Your task to perform on an android device: turn off translation in the chrome app Image 0: 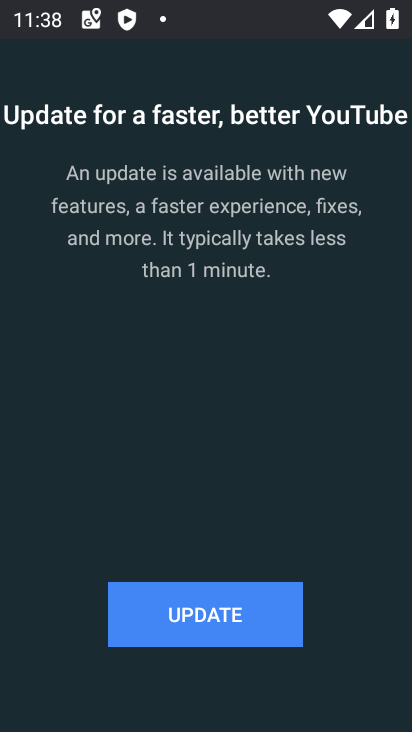
Step 0: press back button
Your task to perform on an android device: turn off translation in the chrome app Image 1: 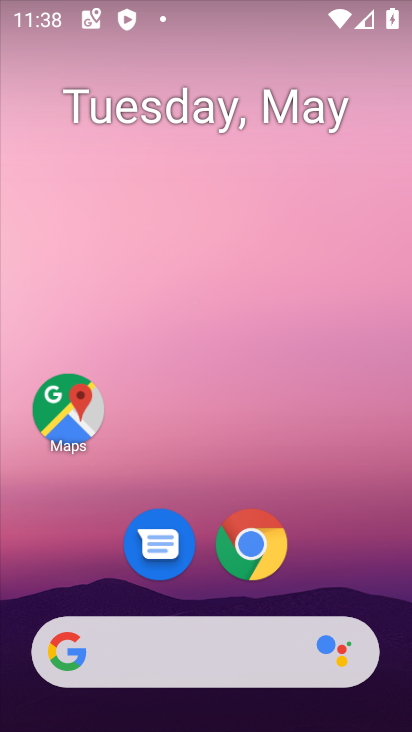
Step 1: drag from (365, 549) to (159, 79)
Your task to perform on an android device: turn off translation in the chrome app Image 2: 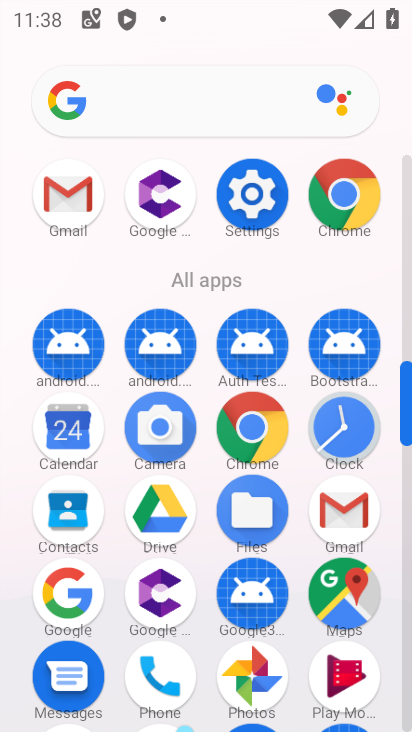
Step 2: click (331, 191)
Your task to perform on an android device: turn off translation in the chrome app Image 3: 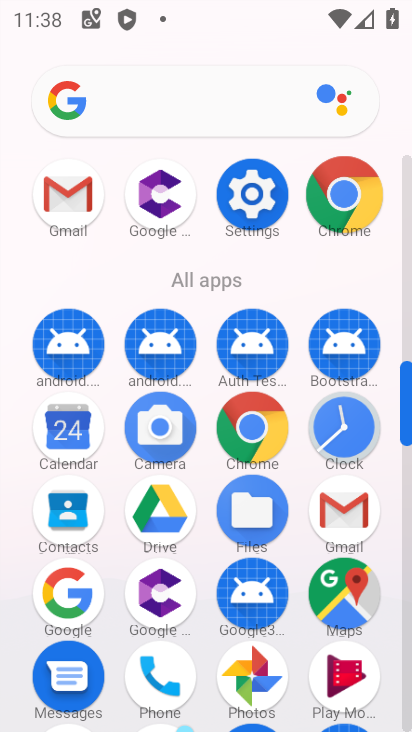
Step 3: click (331, 191)
Your task to perform on an android device: turn off translation in the chrome app Image 4: 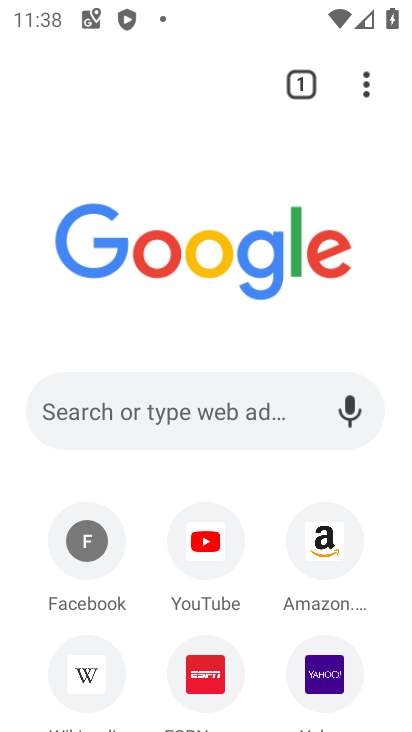
Step 4: click (365, 85)
Your task to perform on an android device: turn off translation in the chrome app Image 5: 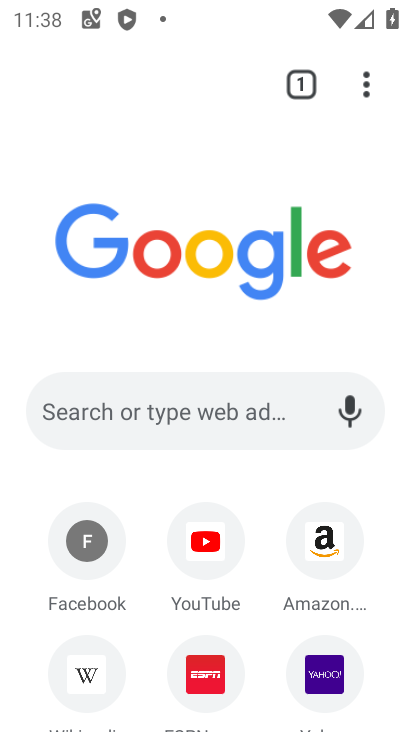
Step 5: drag from (338, 188) to (203, 591)
Your task to perform on an android device: turn off translation in the chrome app Image 6: 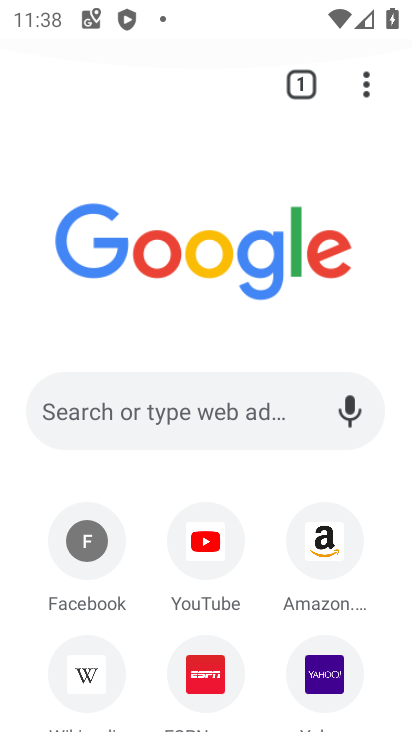
Step 6: click (203, 591)
Your task to perform on an android device: turn off translation in the chrome app Image 7: 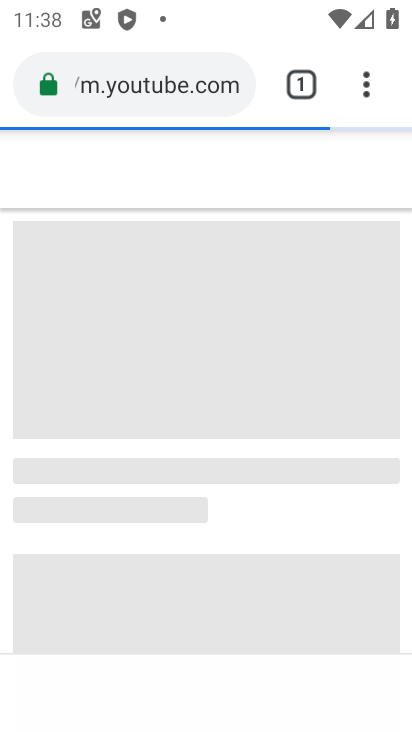
Step 7: press back button
Your task to perform on an android device: turn off translation in the chrome app Image 8: 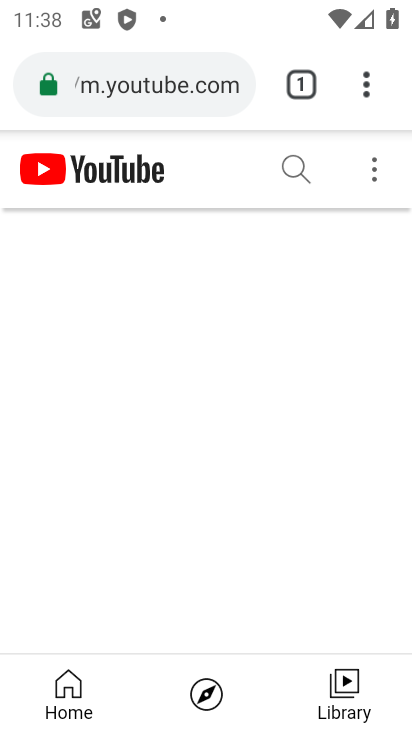
Step 8: press back button
Your task to perform on an android device: turn off translation in the chrome app Image 9: 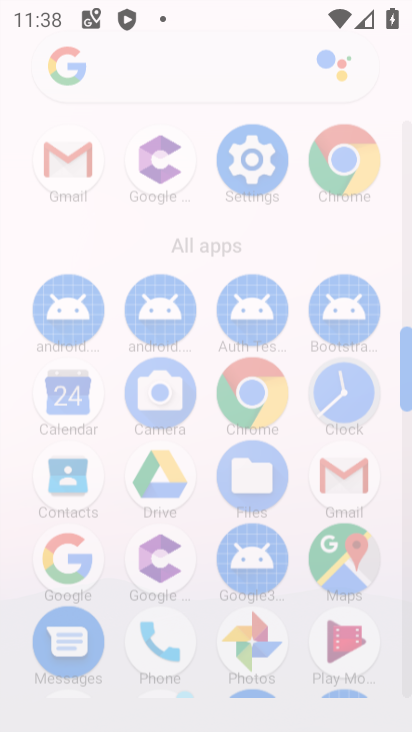
Step 9: click (364, 91)
Your task to perform on an android device: turn off translation in the chrome app Image 10: 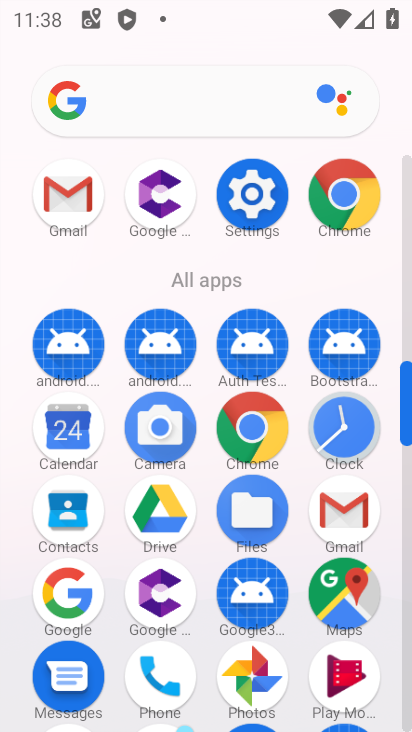
Step 10: press home button
Your task to perform on an android device: turn off translation in the chrome app Image 11: 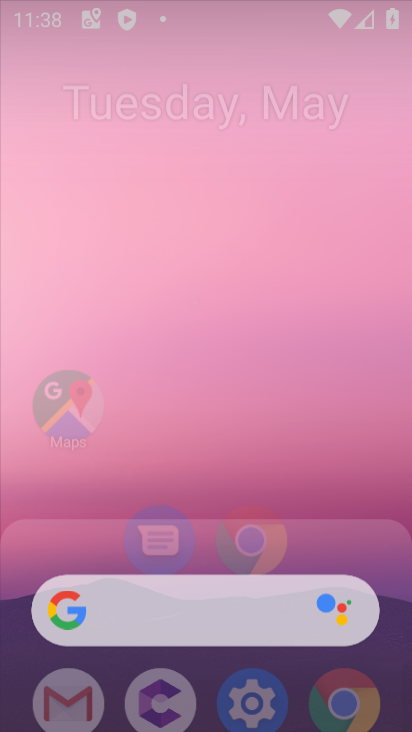
Step 11: press home button
Your task to perform on an android device: turn off translation in the chrome app Image 12: 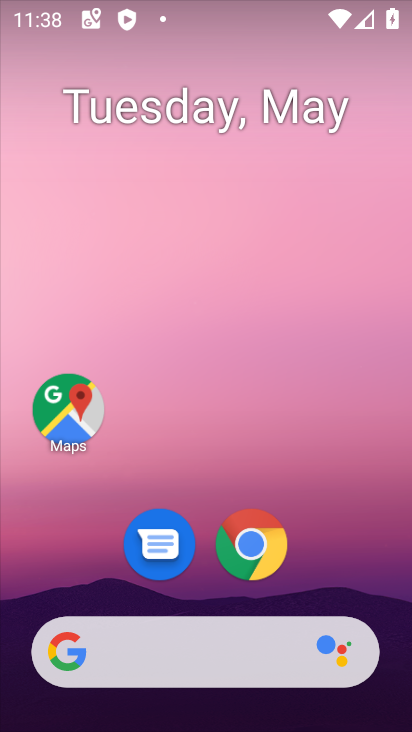
Step 12: drag from (328, 435) to (210, 149)
Your task to perform on an android device: turn off translation in the chrome app Image 13: 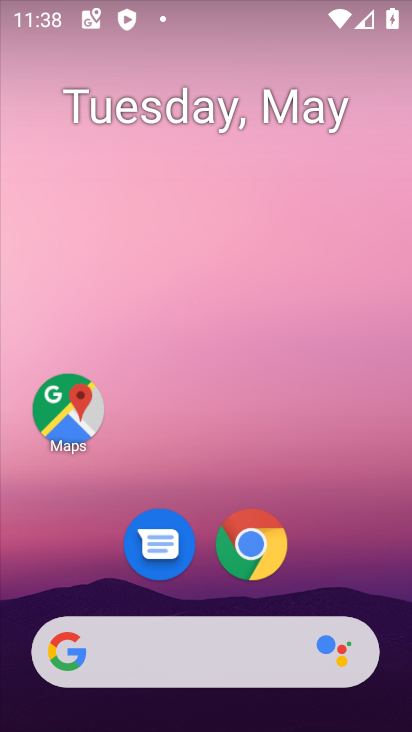
Step 13: drag from (345, 596) to (131, 149)
Your task to perform on an android device: turn off translation in the chrome app Image 14: 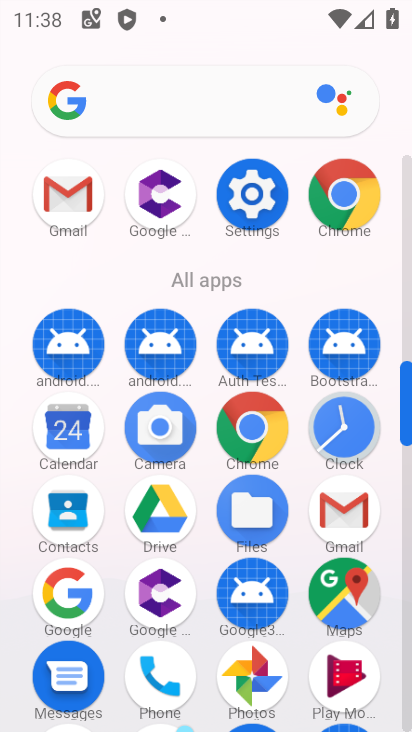
Step 14: click (199, 0)
Your task to perform on an android device: turn off translation in the chrome app Image 15: 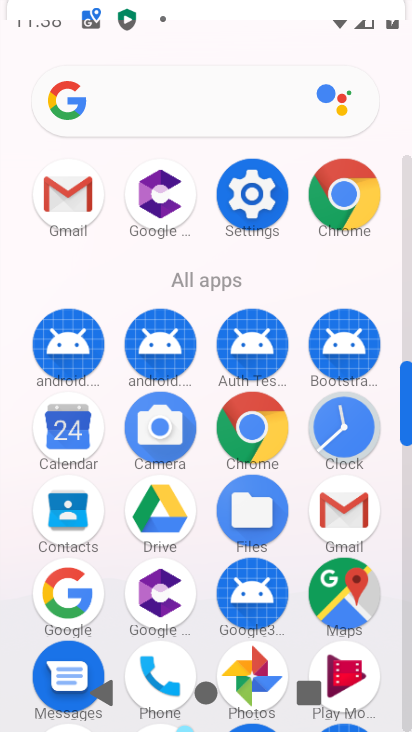
Step 15: click (338, 218)
Your task to perform on an android device: turn off translation in the chrome app Image 16: 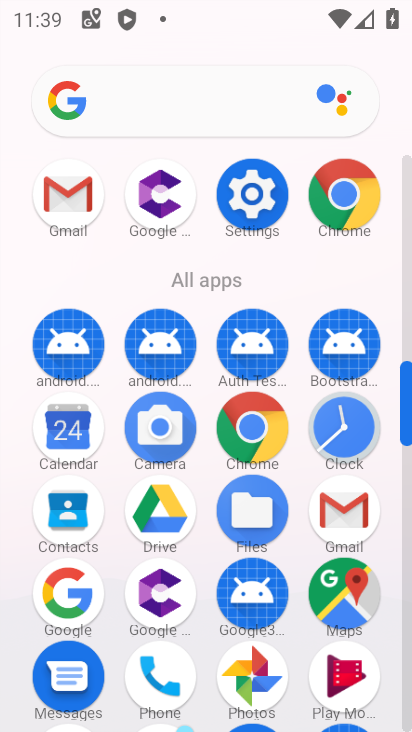
Step 16: click (346, 205)
Your task to perform on an android device: turn off translation in the chrome app Image 17: 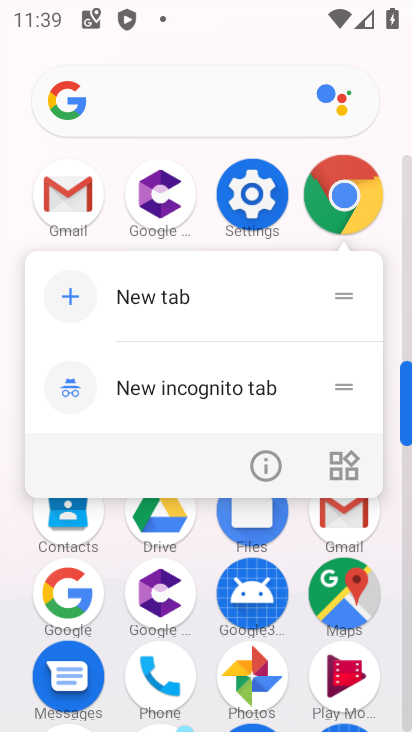
Step 17: click (351, 195)
Your task to perform on an android device: turn off translation in the chrome app Image 18: 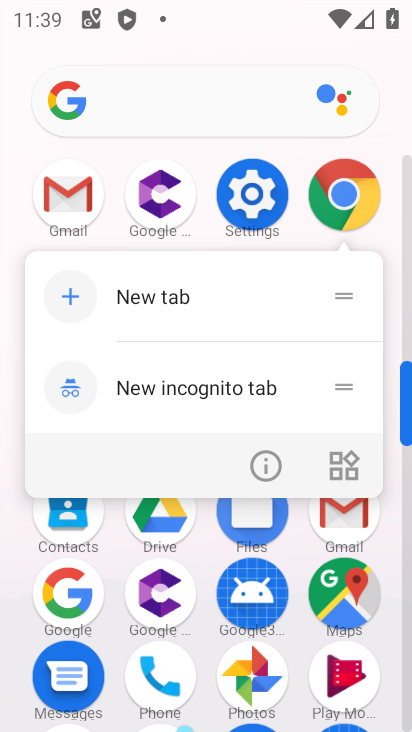
Step 18: click (351, 195)
Your task to perform on an android device: turn off translation in the chrome app Image 19: 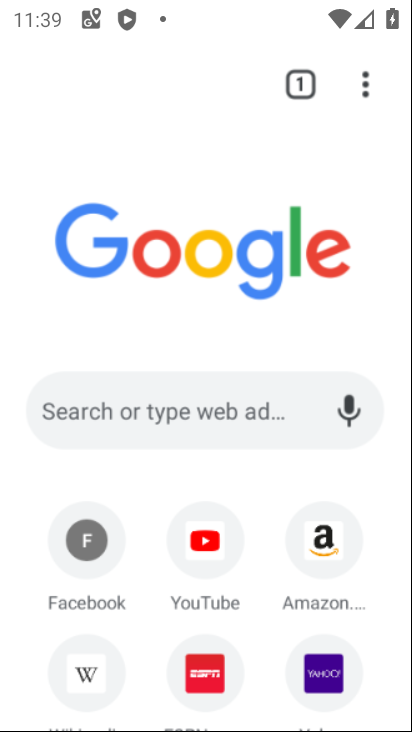
Step 19: click (352, 196)
Your task to perform on an android device: turn off translation in the chrome app Image 20: 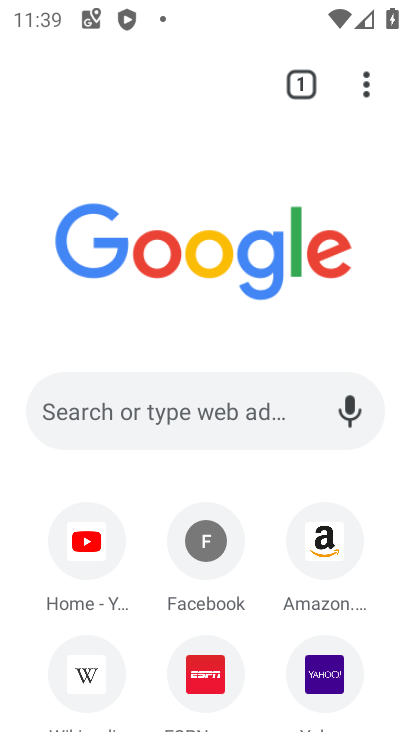
Step 20: drag from (365, 89) to (70, 596)
Your task to perform on an android device: turn off translation in the chrome app Image 21: 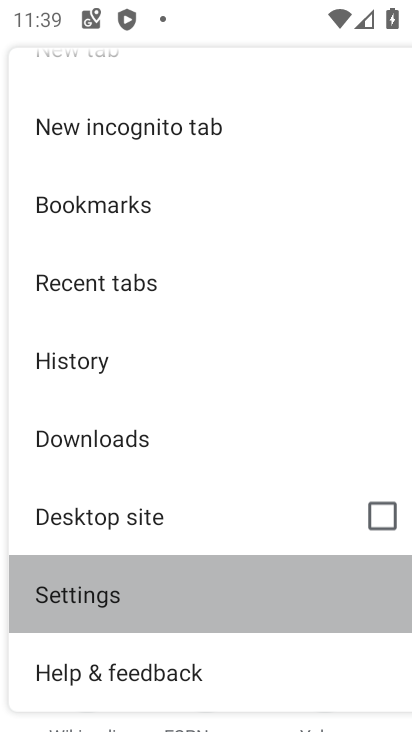
Step 21: click (73, 595)
Your task to perform on an android device: turn off translation in the chrome app Image 22: 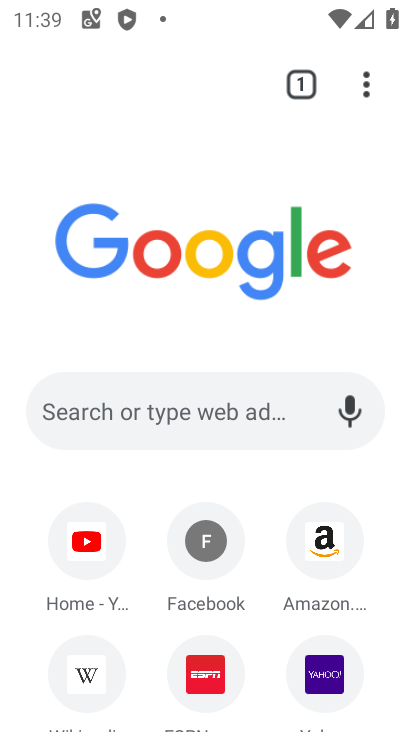
Step 22: click (72, 590)
Your task to perform on an android device: turn off translation in the chrome app Image 23: 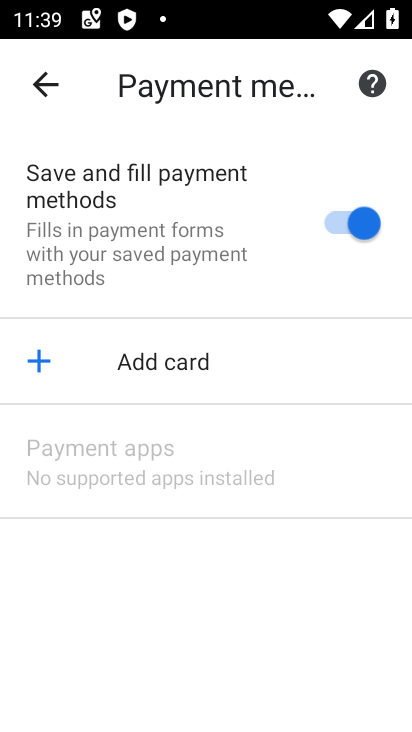
Step 23: click (42, 78)
Your task to perform on an android device: turn off translation in the chrome app Image 24: 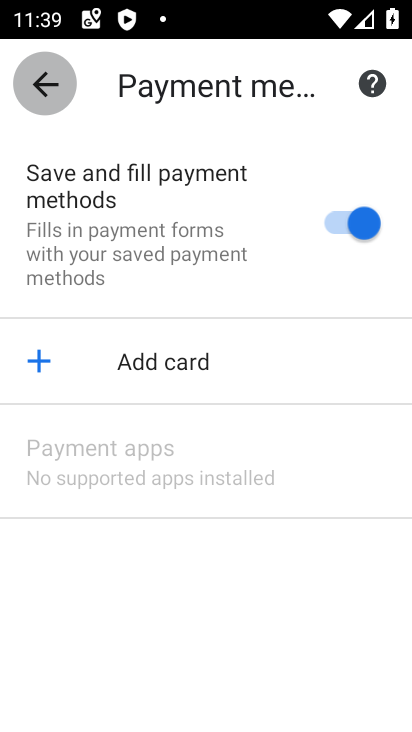
Step 24: click (47, 83)
Your task to perform on an android device: turn off translation in the chrome app Image 25: 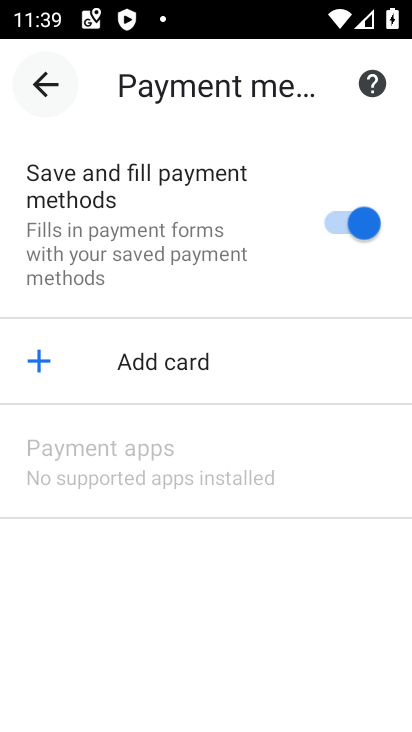
Step 25: click (47, 83)
Your task to perform on an android device: turn off translation in the chrome app Image 26: 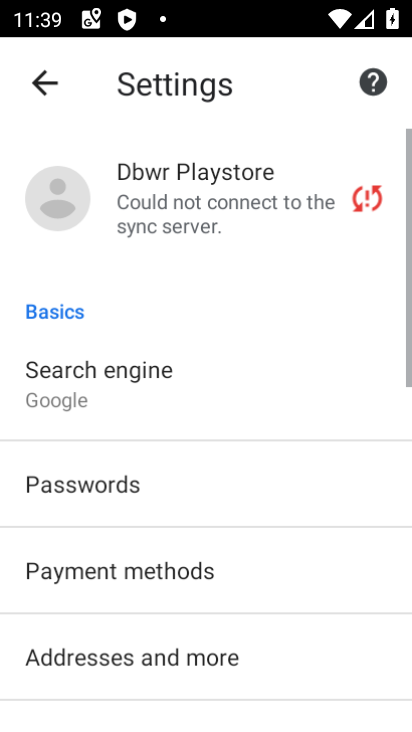
Step 26: click (47, 82)
Your task to perform on an android device: turn off translation in the chrome app Image 27: 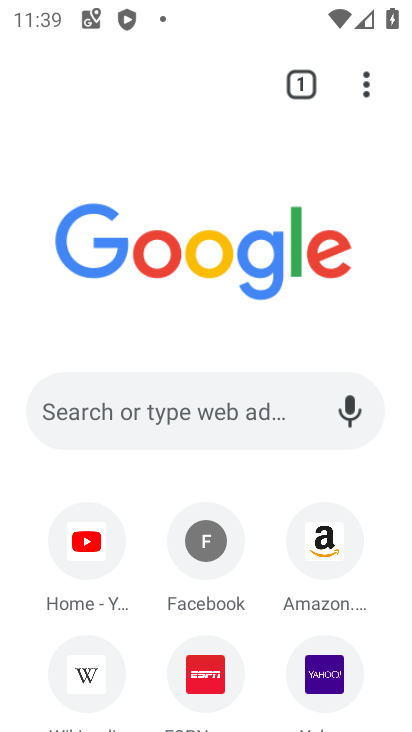
Step 27: click (365, 94)
Your task to perform on an android device: turn off translation in the chrome app Image 28: 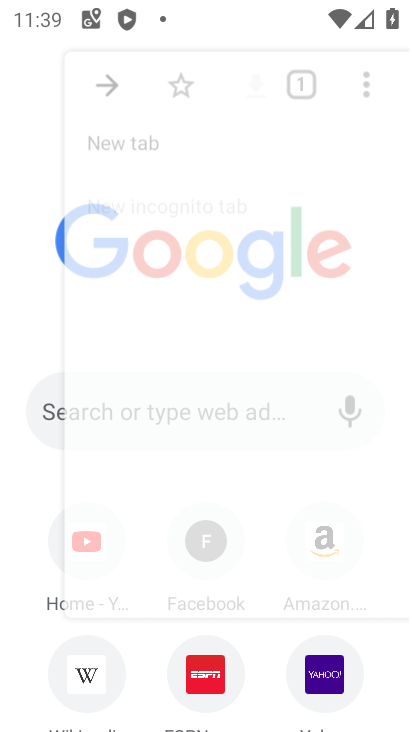
Step 28: click (365, 94)
Your task to perform on an android device: turn off translation in the chrome app Image 29: 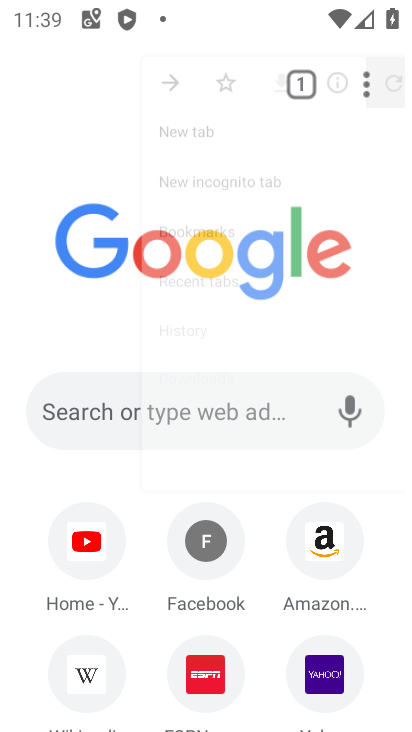
Step 29: click (365, 94)
Your task to perform on an android device: turn off translation in the chrome app Image 30: 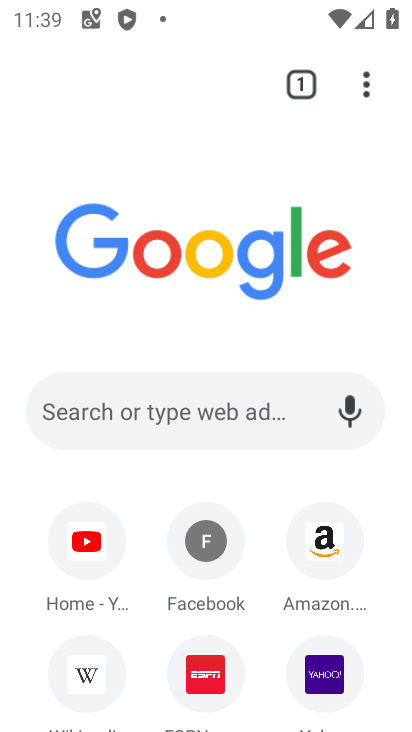
Step 30: click (365, 94)
Your task to perform on an android device: turn off translation in the chrome app Image 31: 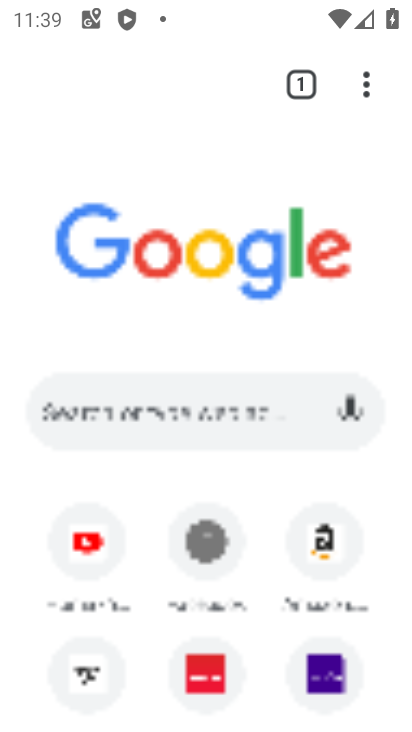
Step 31: drag from (366, 93) to (71, 588)
Your task to perform on an android device: turn off translation in the chrome app Image 32: 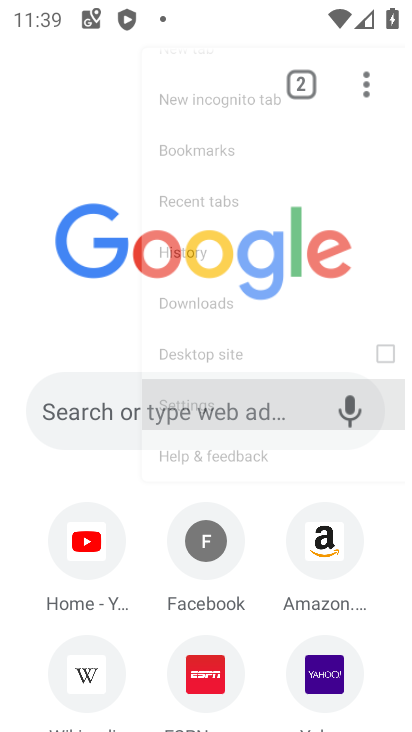
Step 32: click (80, 585)
Your task to perform on an android device: turn off translation in the chrome app Image 33: 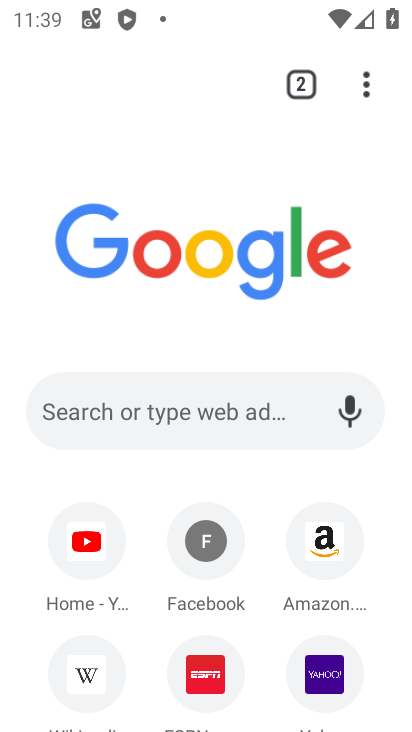
Step 33: click (91, 587)
Your task to perform on an android device: turn off translation in the chrome app Image 34: 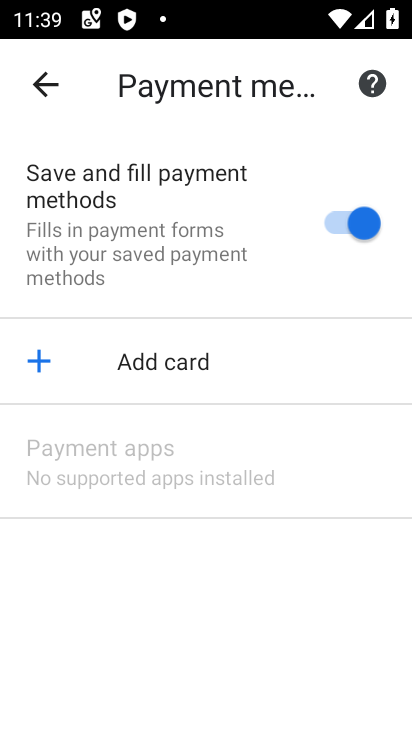
Step 34: click (36, 88)
Your task to perform on an android device: turn off translation in the chrome app Image 35: 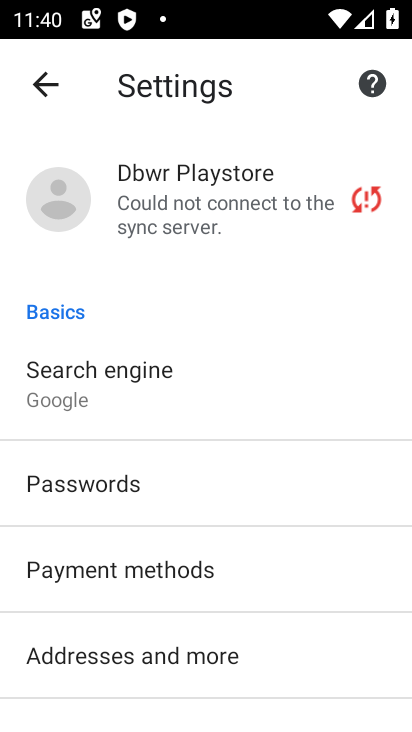
Step 35: click (134, 248)
Your task to perform on an android device: turn off translation in the chrome app Image 36: 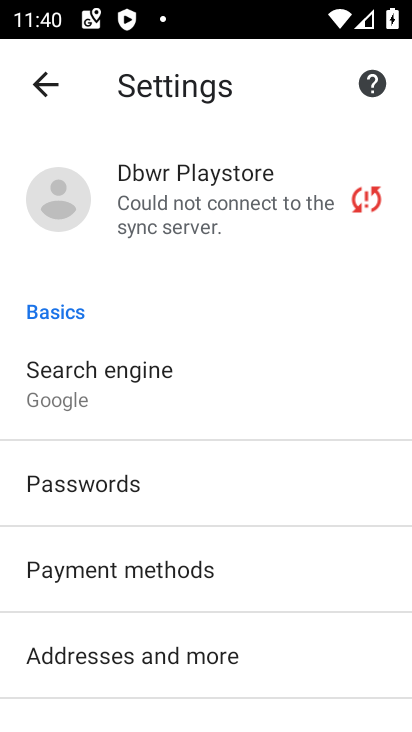
Step 36: drag from (163, 469) to (151, 262)
Your task to perform on an android device: turn off translation in the chrome app Image 37: 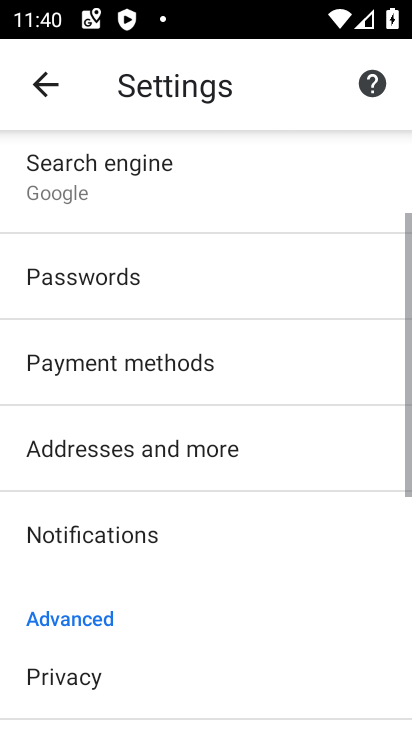
Step 37: drag from (163, 484) to (146, 259)
Your task to perform on an android device: turn off translation in the chrome app Image 38: 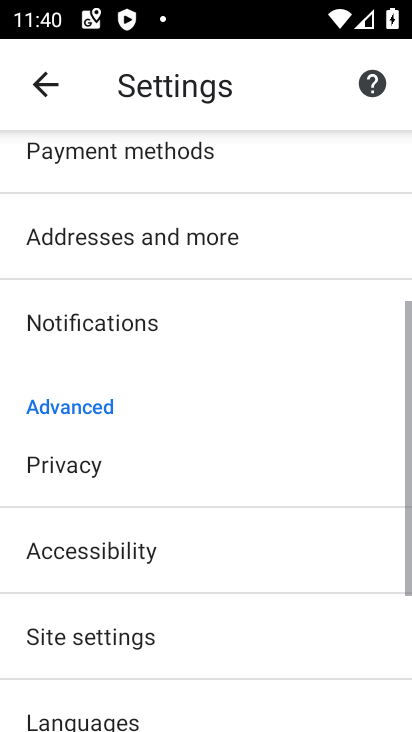
Step 38: drag from (208, 639) to (196, 191)
Your task to perform on an android device: turn off translation in the chrome app Image 39: 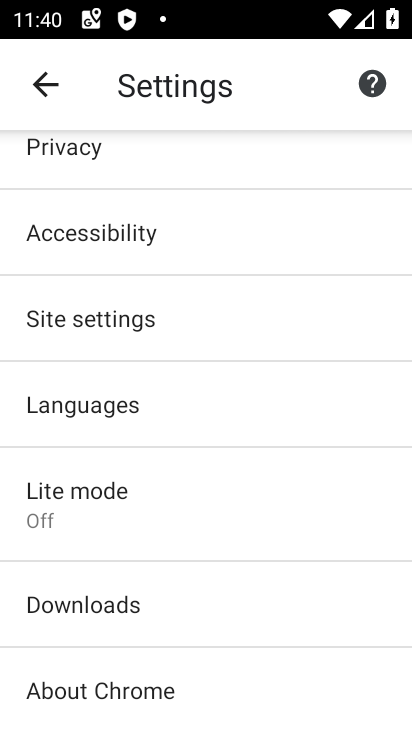
Step 39: drag from (105, 239) to (182, 692)
Your task to perform on an android device: turn off translation in the chrome app Image 40: 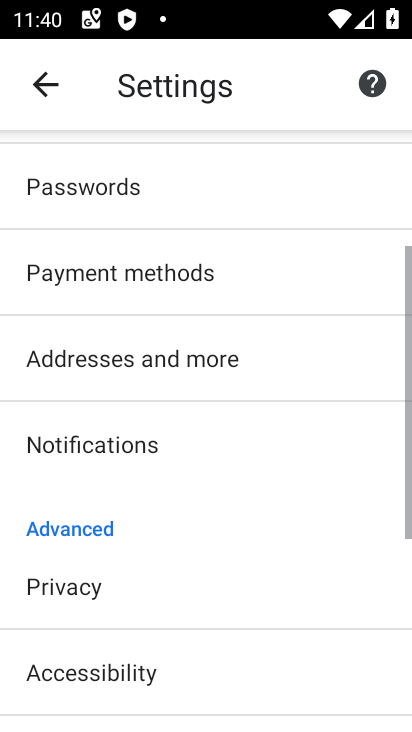
Step 40: drag from (168, 470) to (174, 194)
Your task to perform on an android device: turn off translation in the chrome app Image 41: 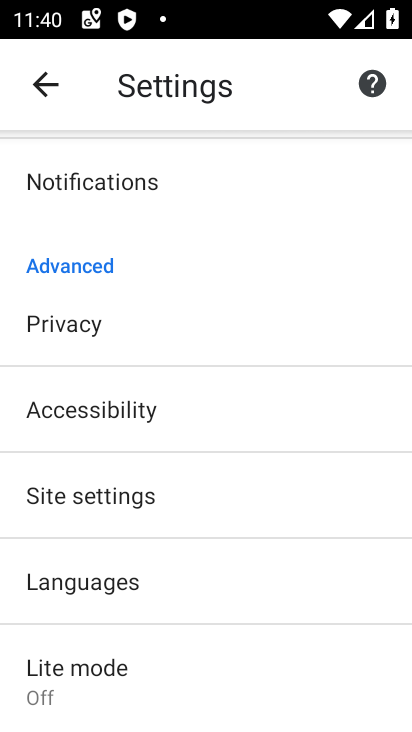
Step 41: drag from (108, 549) to (115, 242)
Your task to perform on an android device: turn off translation in the chrome app Image 42: 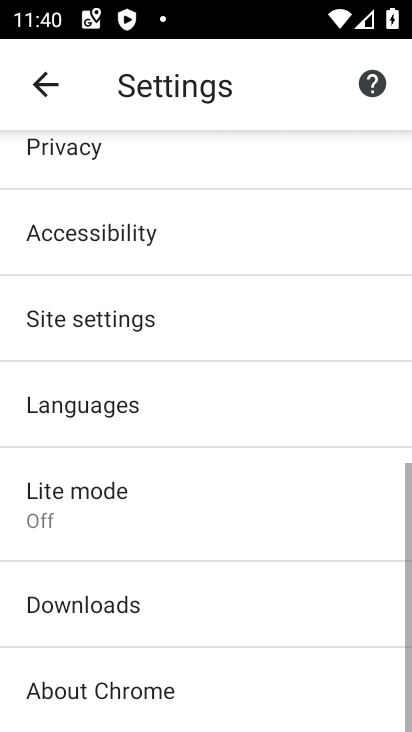
Step 42: drag from (137, 576) to (131, 286)
Your task to perform on an android device: turn off translation in the chrome app Image 43: 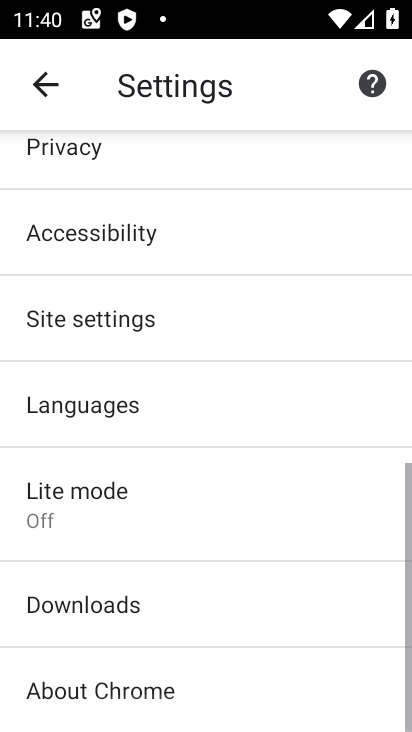
Step 43: drag from (127, 466) to (152, 130)
Your task to perform on an android device: turn off translation in the chrome app Image 44: 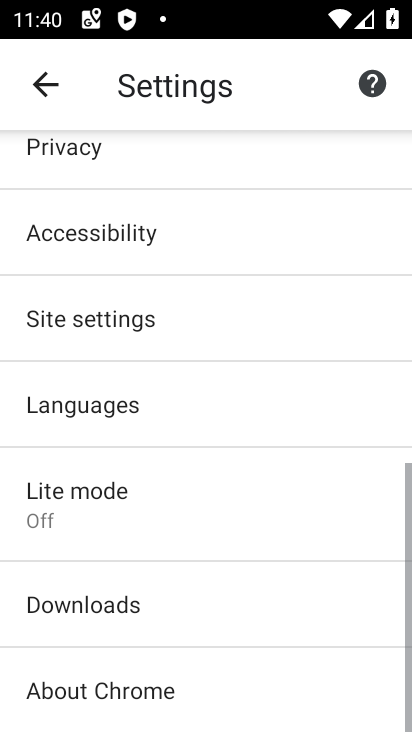
Step 44: click (77, 308)
Your task to perform on an android device: turn off translation in the chrome app Image 45: 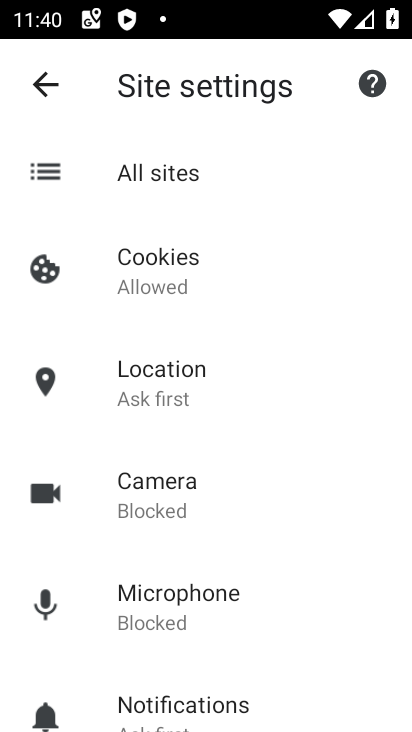
Step 45: task complete